Your task to perform on an android device: turn off smart reply in the gmail app Image 0: 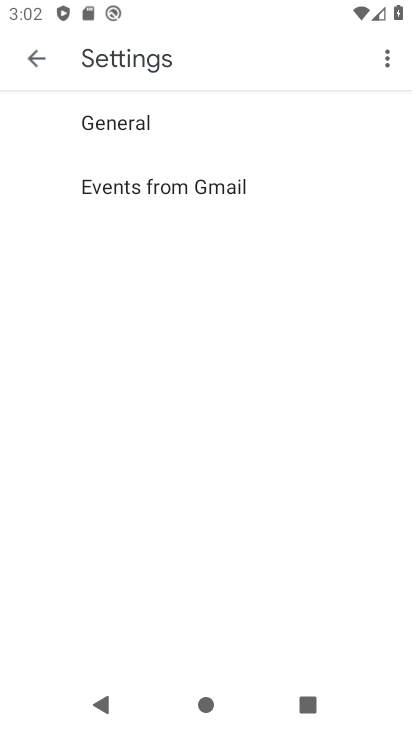
Step 0: click (26, 53)
Your task to perform on an android device: turn off smart reply in the gmail app Image 1: 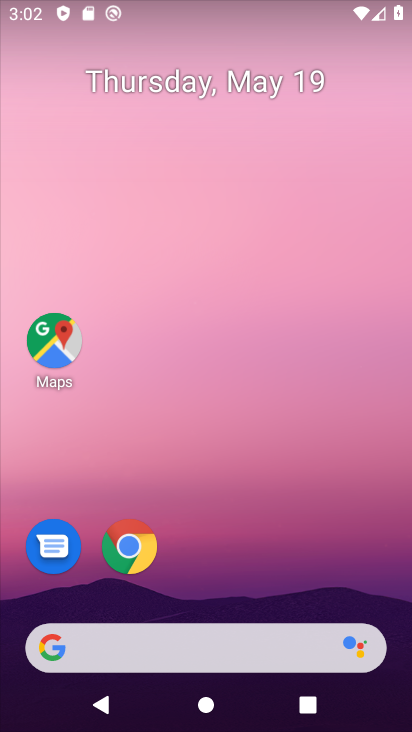
Step 1: drag from (224, 575) to (195, 35)
Your task to perform on an android device: turn off smart reply in the gmail app Image 2: 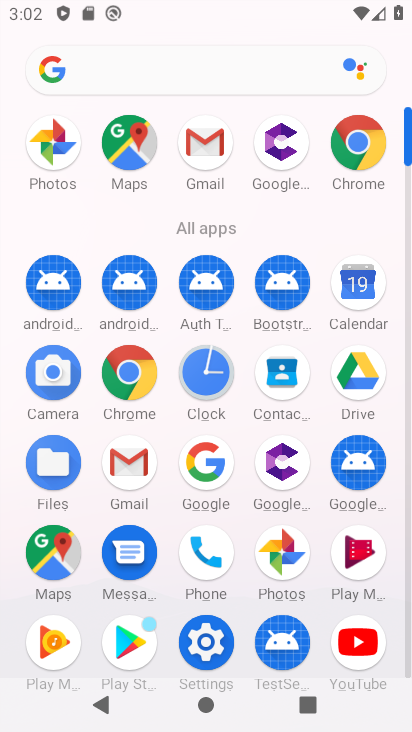
Step 2: click (209, 135)
Your task to perform on an android device: turn off smart reply in the gmail app Image 3: 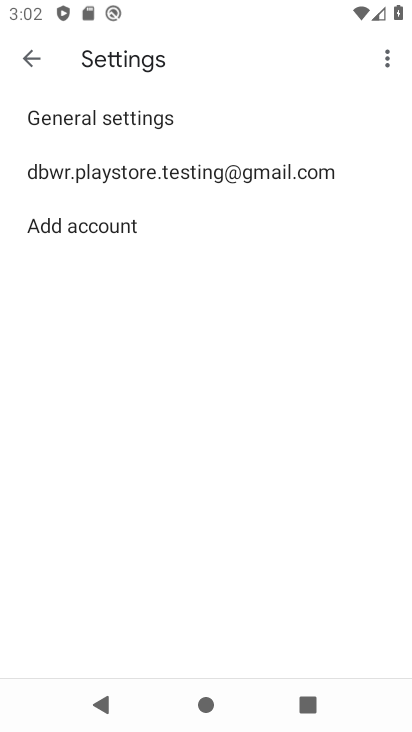
Step 3: click (347, 170)
Your task to perform on an android device: turn off smart reply in the gmail app Image 4: 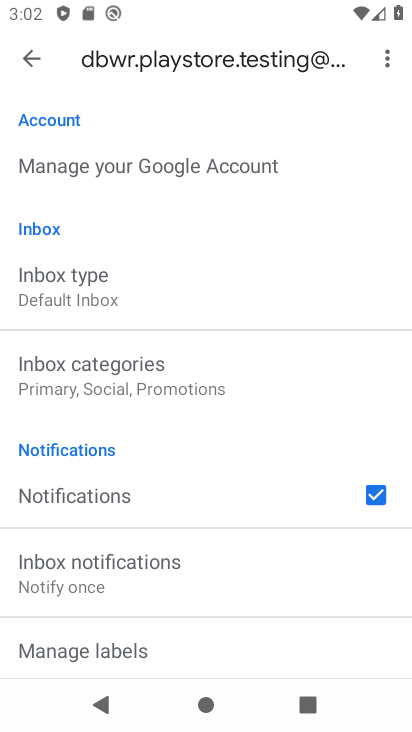
Step 4: drag from (182, 579) to (217, 115)
Your task to perform on an android device: turn off smart reply in the gmail app Image 5: 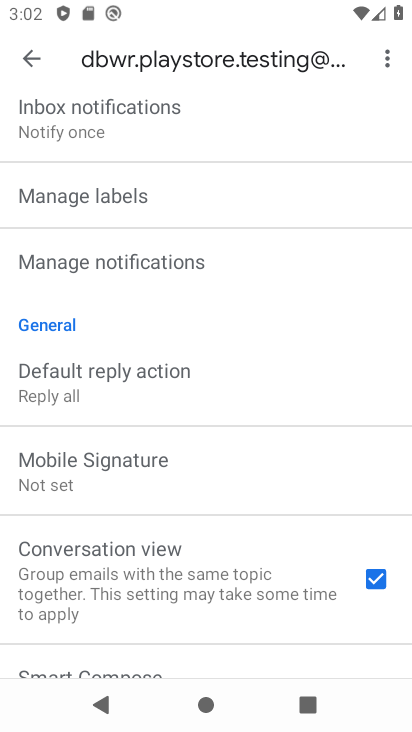
Step 5: drag from (214, 612) to (216, 107)
Your task to perform on an android device: turn off smart reply in the gmail app Image 6: 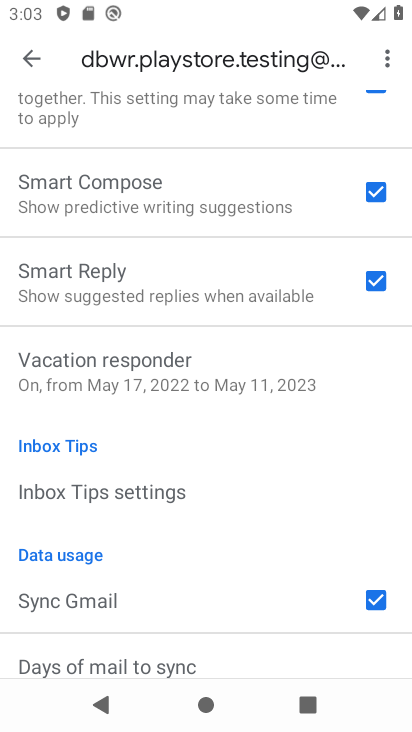
Step 6: click (374, 277)
Your task to perform on an android device: turn off smart reply in the gmail app Image 7: 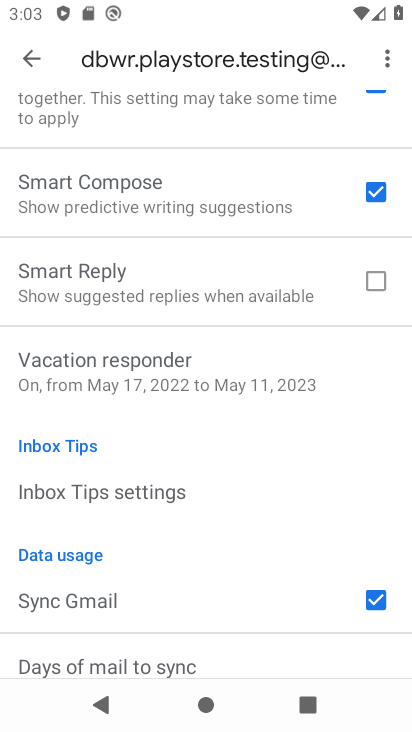
Step 7: task complete